Your task to perform on an android device: find snoozed emails in the gmail app Image 0: 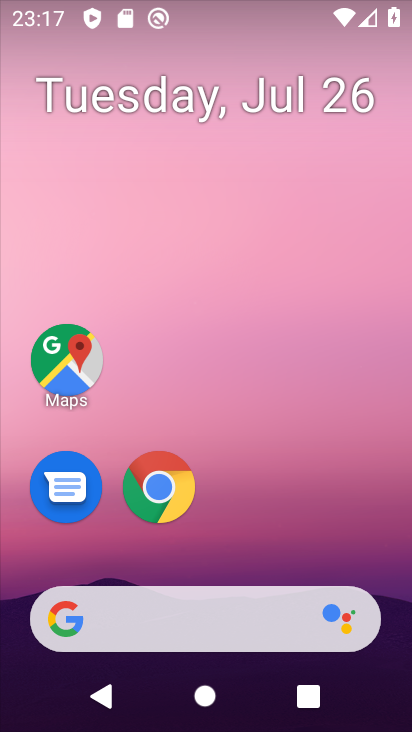
Step 0: drag from (194, 494) to (320, 16)
Your task to perform on an android device: find snoozed emails in the gmail app Image 1: 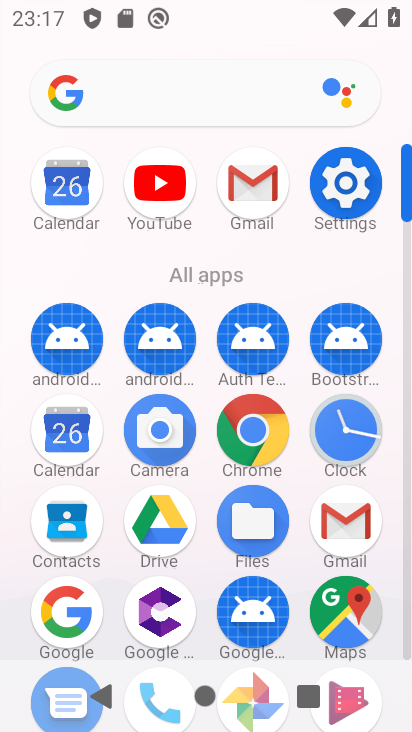
Step 1: click (265, 181)
Your task to perform on an android device: find snoozed emails in the gmail app Image 2: 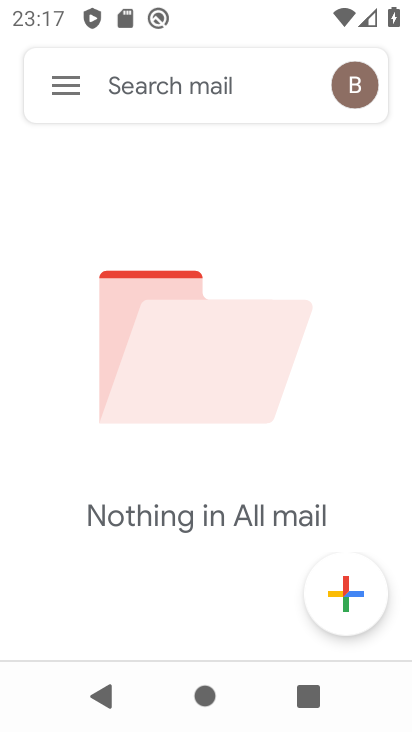
Step 2: click (67, 88)
Your task to perform on an android device: find snoozed emails in the gmail app Image 3: 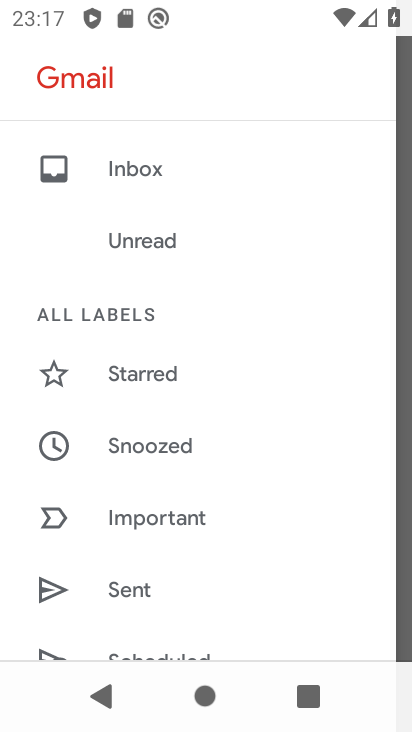
Step 3: click (182, 443)
Your task to perform on an android device: find snoozed emails in the gmail app Image 4: 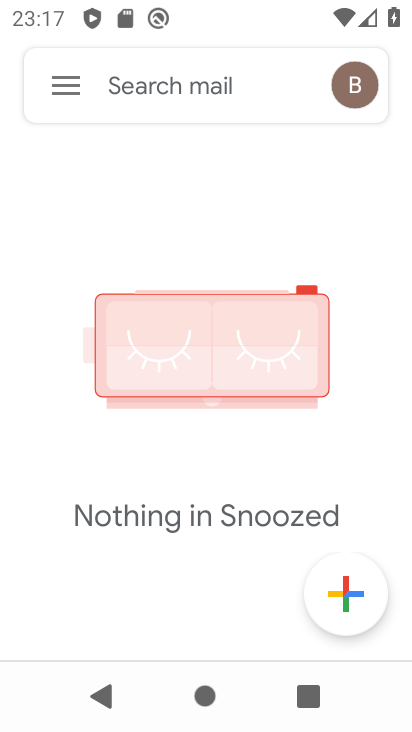
Step 4: task complete